Your task to perform on an android device: change the clock display to digital Image 0: 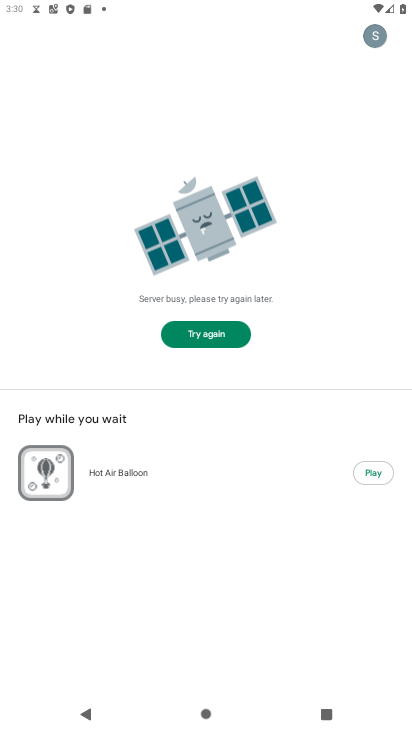
Step 0: press home button
Your task to perform on an android device: change the clock display to digital Image 1: 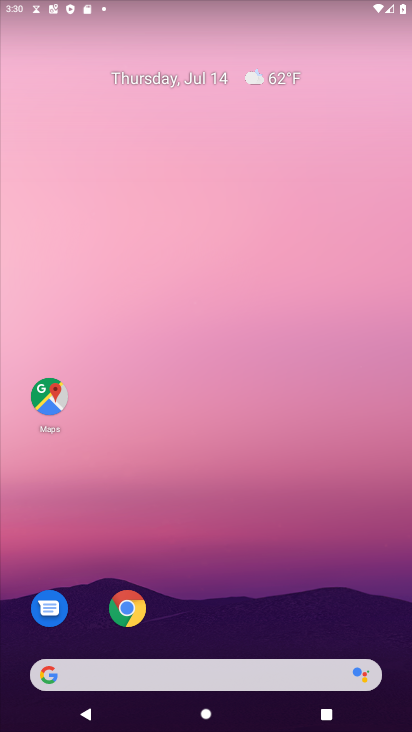
Step 1: drag from (203, 667) to (219, 12)
Your task to perform on an android device: change the clock display to digital Image 2: 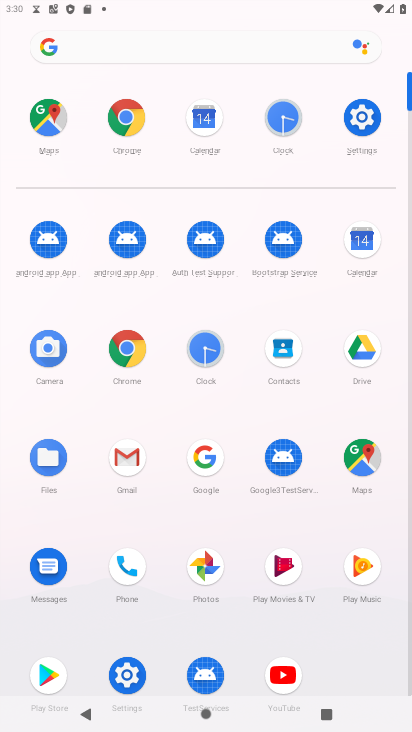
Step 2: click (200, 355)
Your task to perform on an android device: change the clock display to digital Image 3: 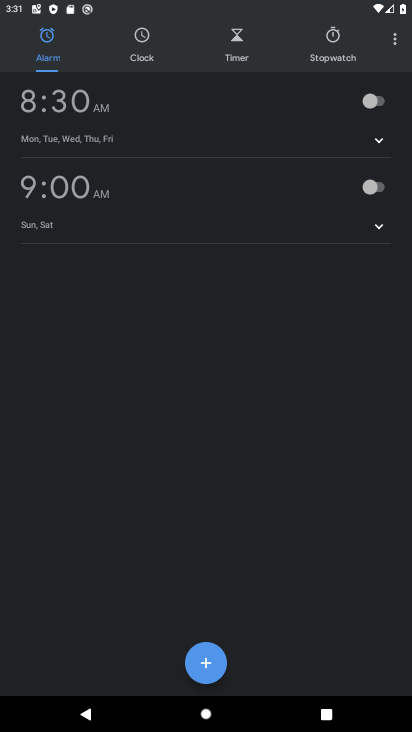
Step 3: click (393, 39)
Your task to perform on an android device: change the clock display to digital Image 4: 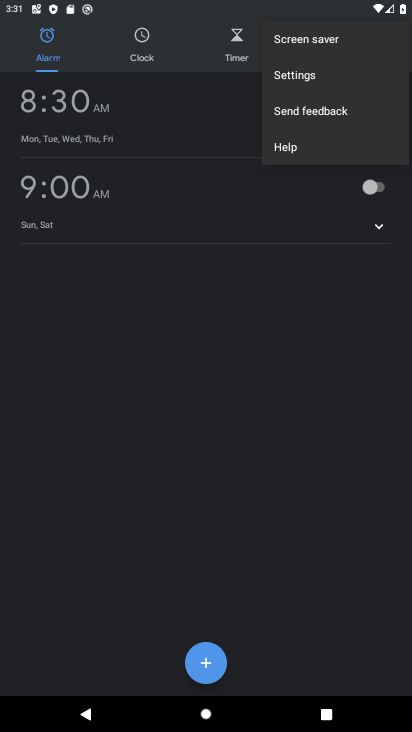
Step 4: click (306, 90)
Your task to perform on an android device: change the clock display to digital Image 5: 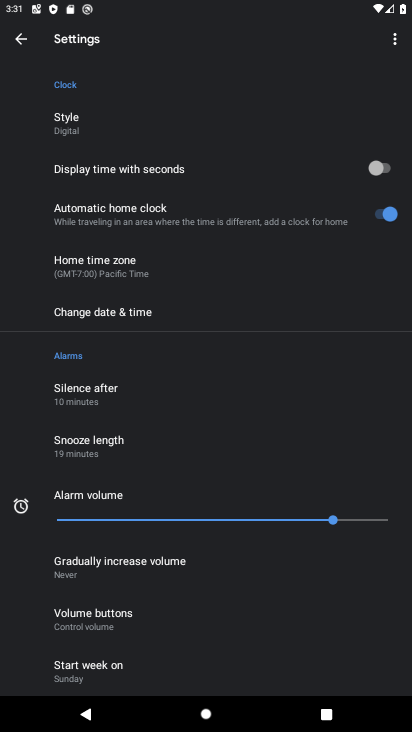
Step 5: click (66, 119)
Your task to perform on an android device: change the clock display to digital Image 6: 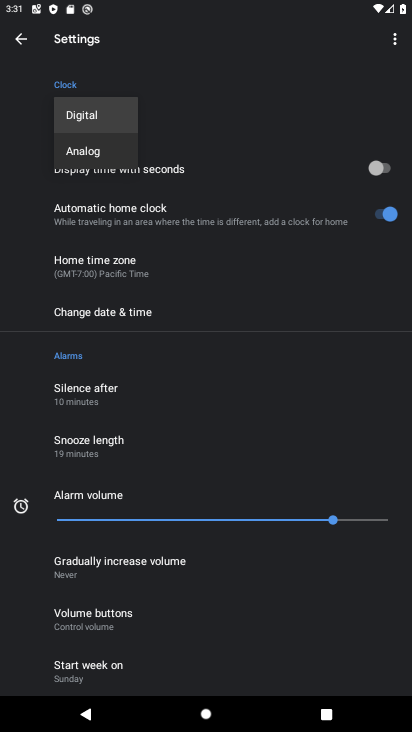
Step 6: click (105, 125)
Your task to perform on an android device: change the clock display to digital Image 7: 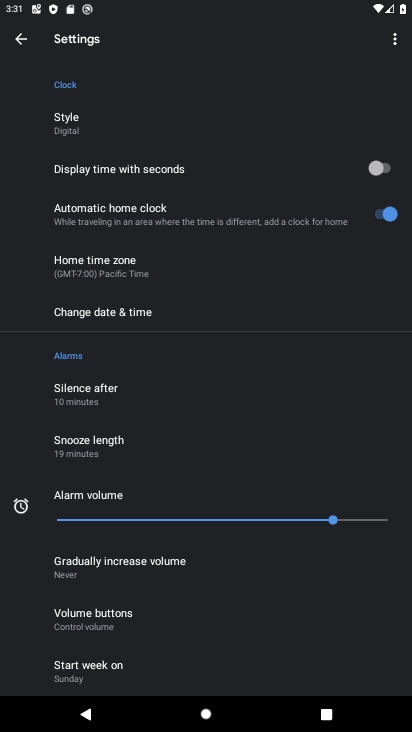
Step 7: task complete